Your task to perform on an android device: Search for Mexican restaurants on Maps Image 0: 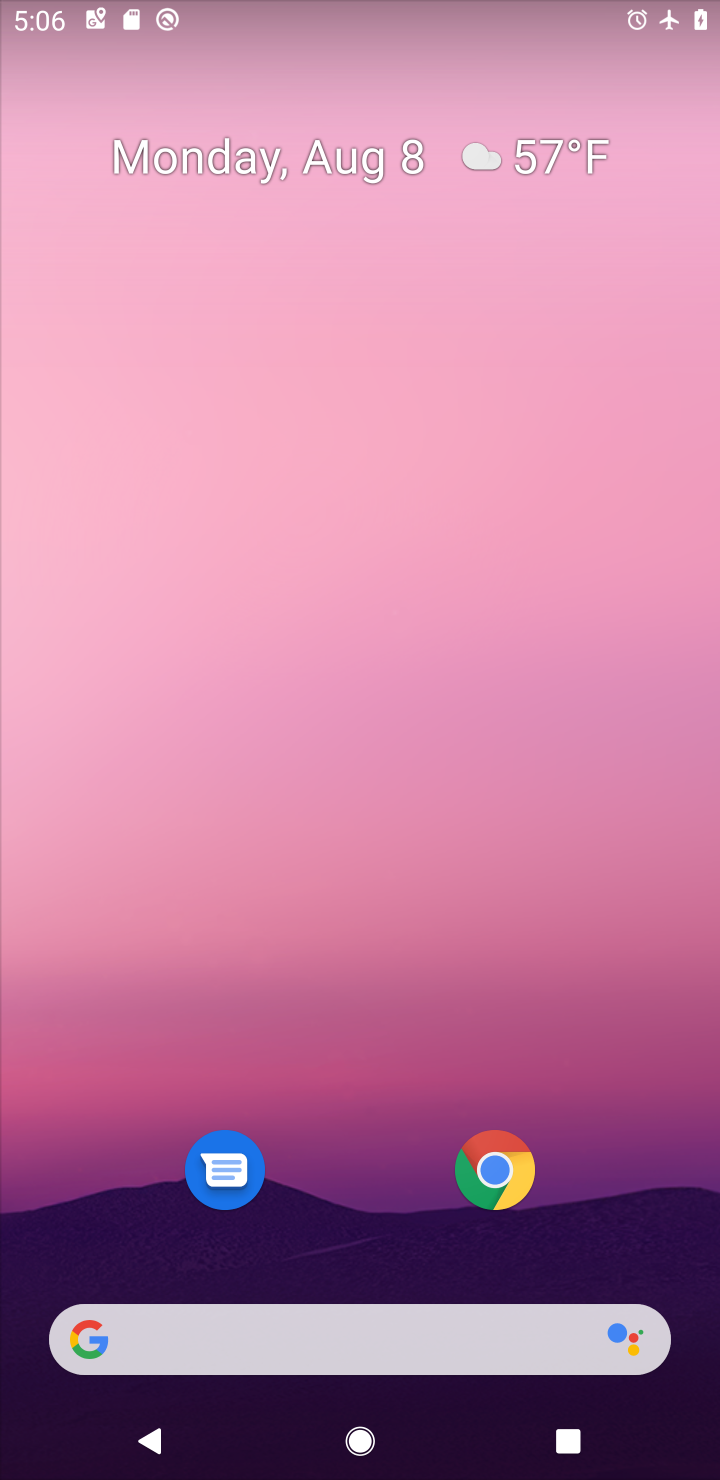
Step 0: drag from (389, 986) to (389, 335)
Your task to perform on an android device: Search for Mexican restaurants on Maps Image 1: 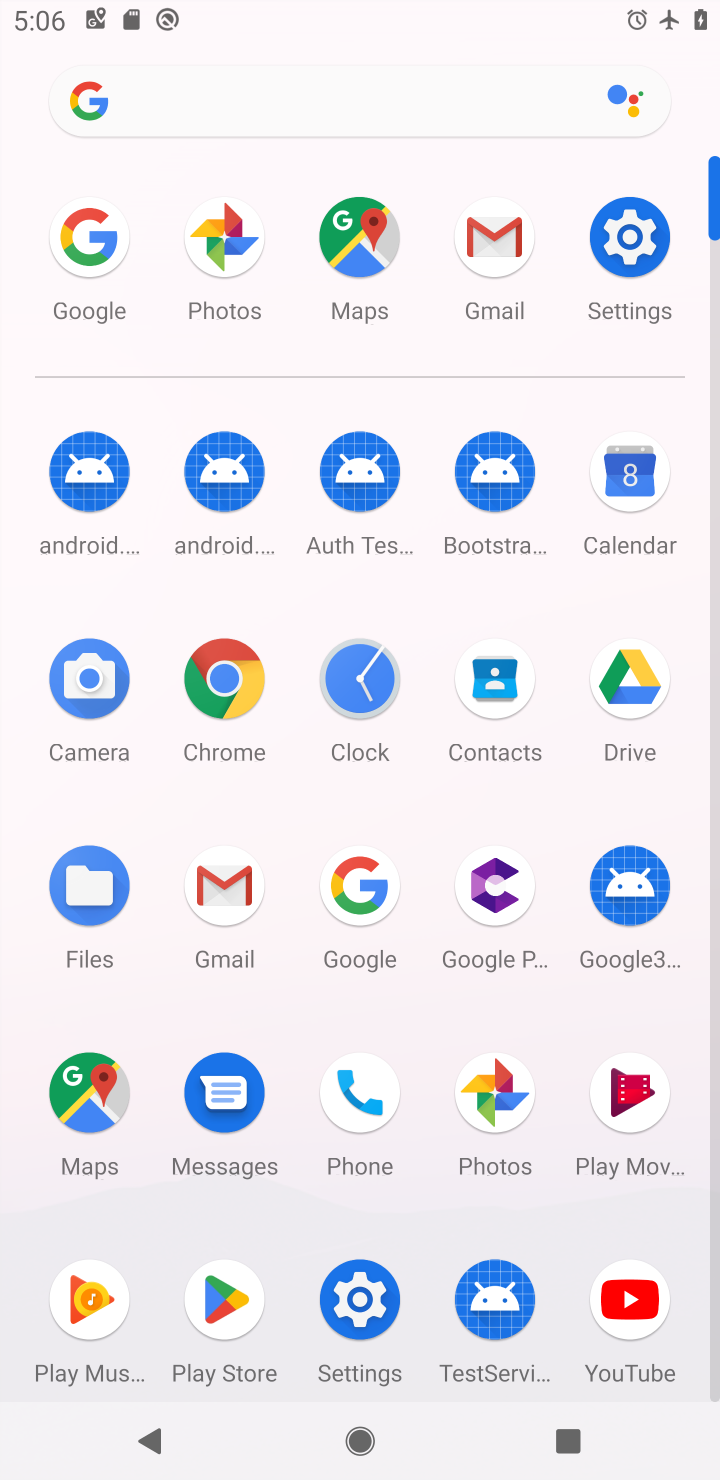
Step 1: click (348, 277)
Your task to perform on an android device: Search for Mexican restaurants on Maps Image 2: 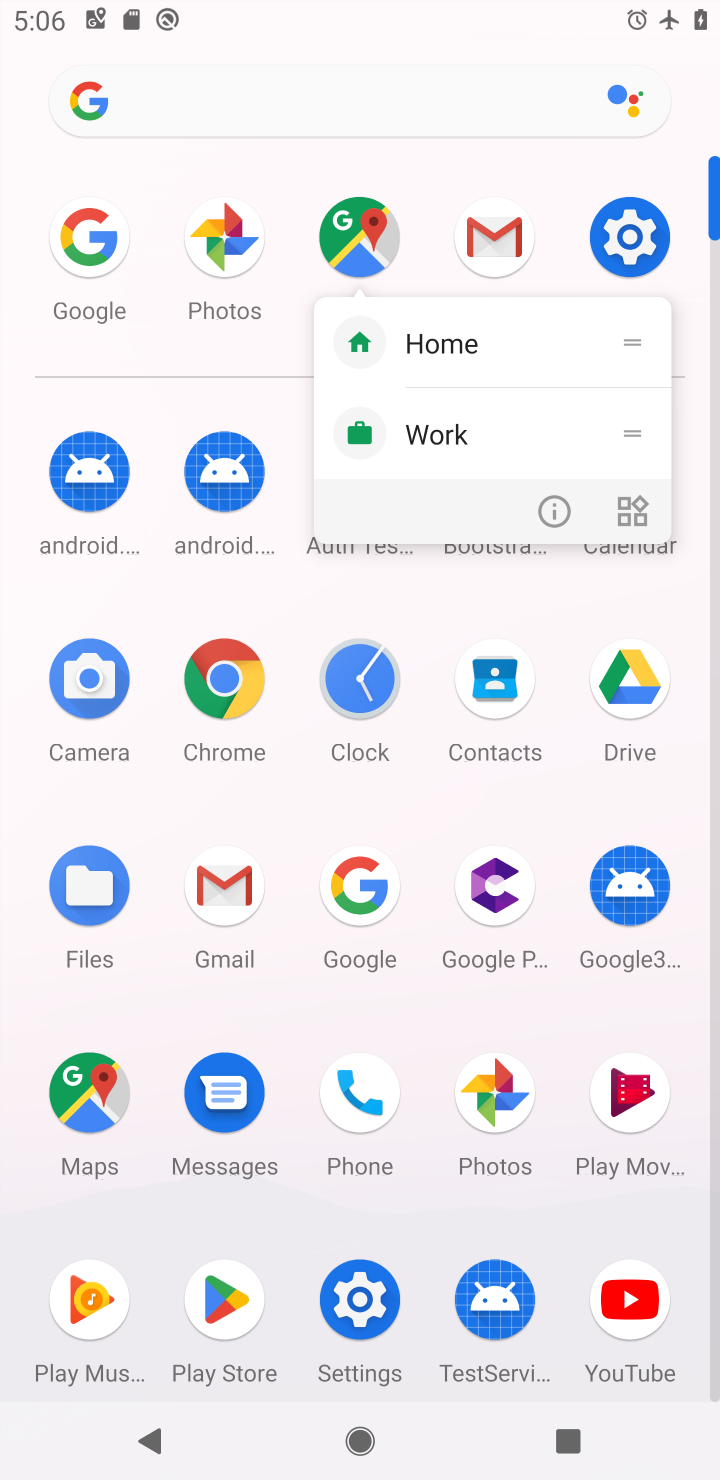
Step 2: click (348, 277)
Your task to perform on an android device: Search for Mexican restaurants on Maps Image 3: 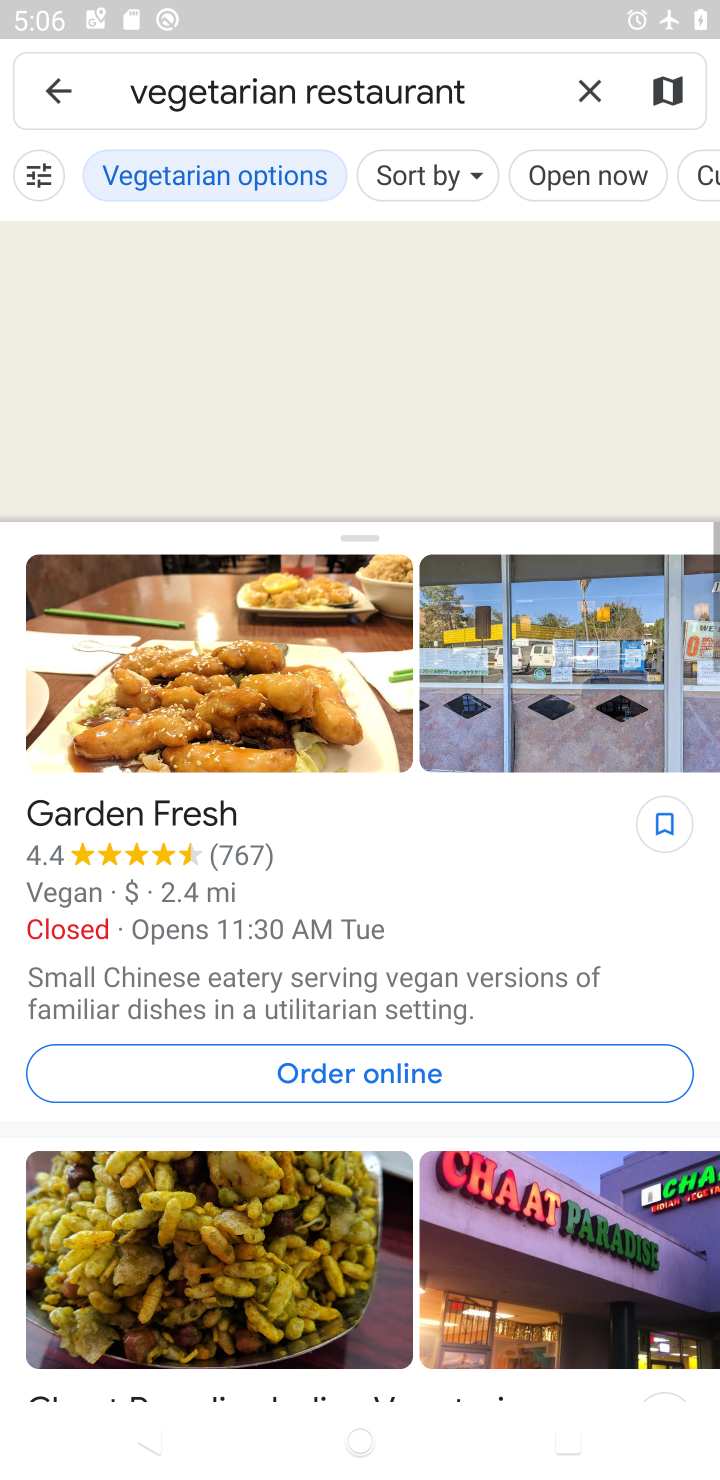
Step 3: click (585, 98)
Your task to perform on an android device: Search for Mexican restaurants on Maps Image 4: 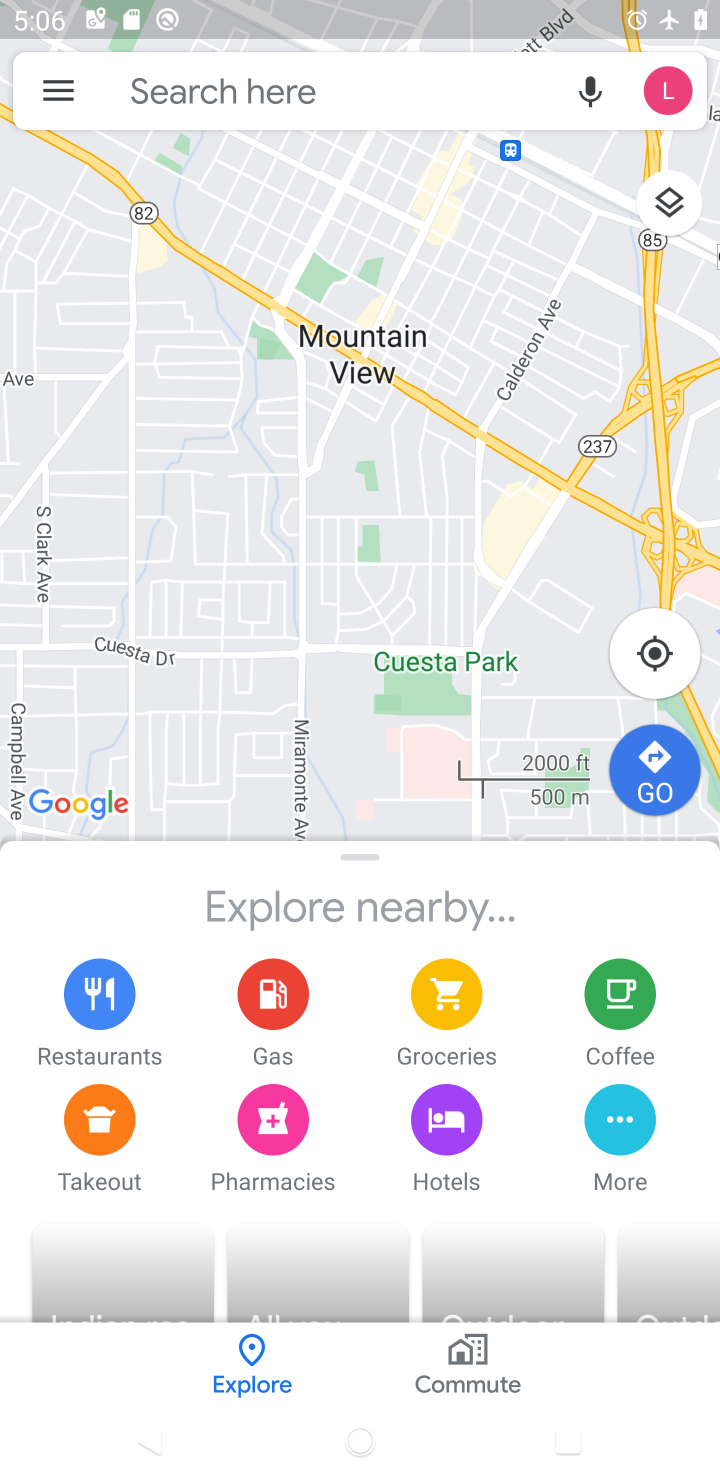
Step 4: click (241, 101)
Your task to perform on an android device: Search for Mexican restaurants on Maps Image 5: 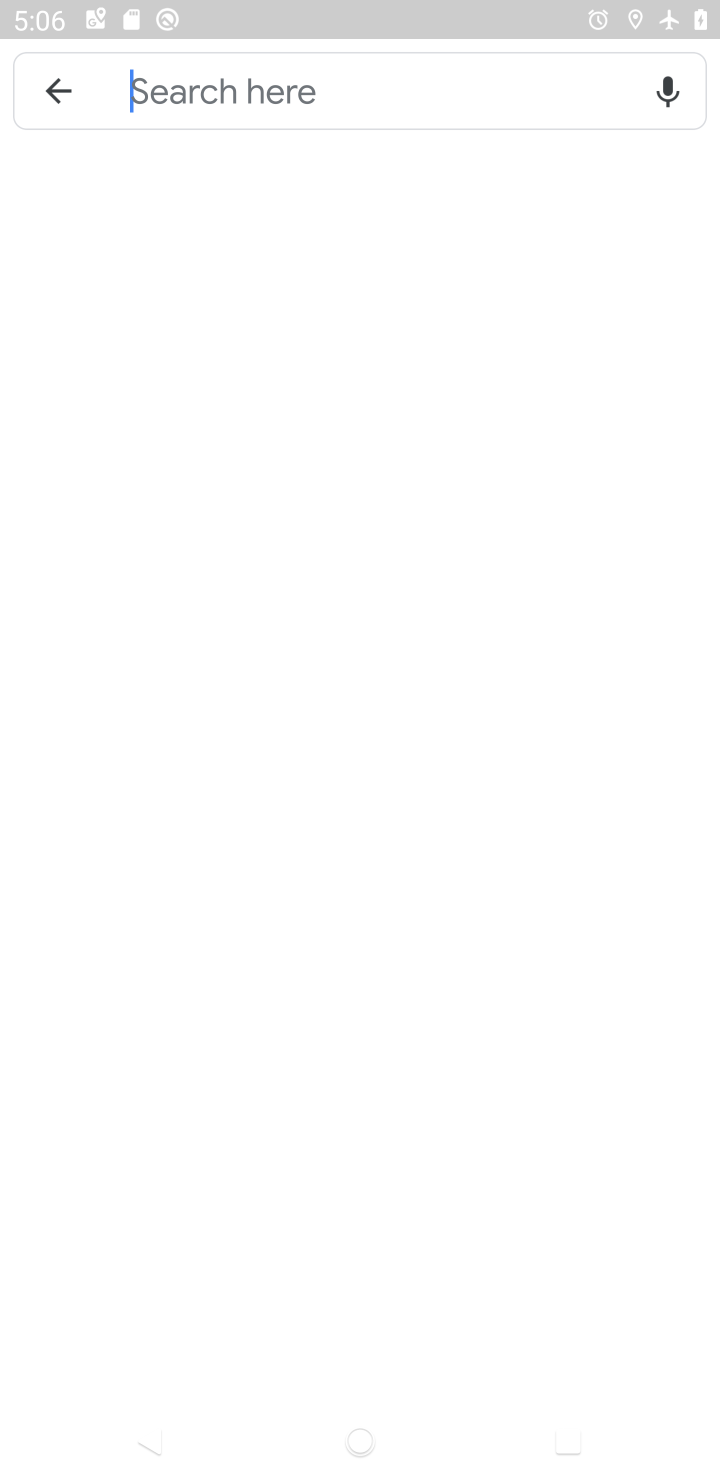
Step 5: type "Mexican restaurants"
Your task to perform on an android device: Search for Mexican restaurants on Maps Image 6: 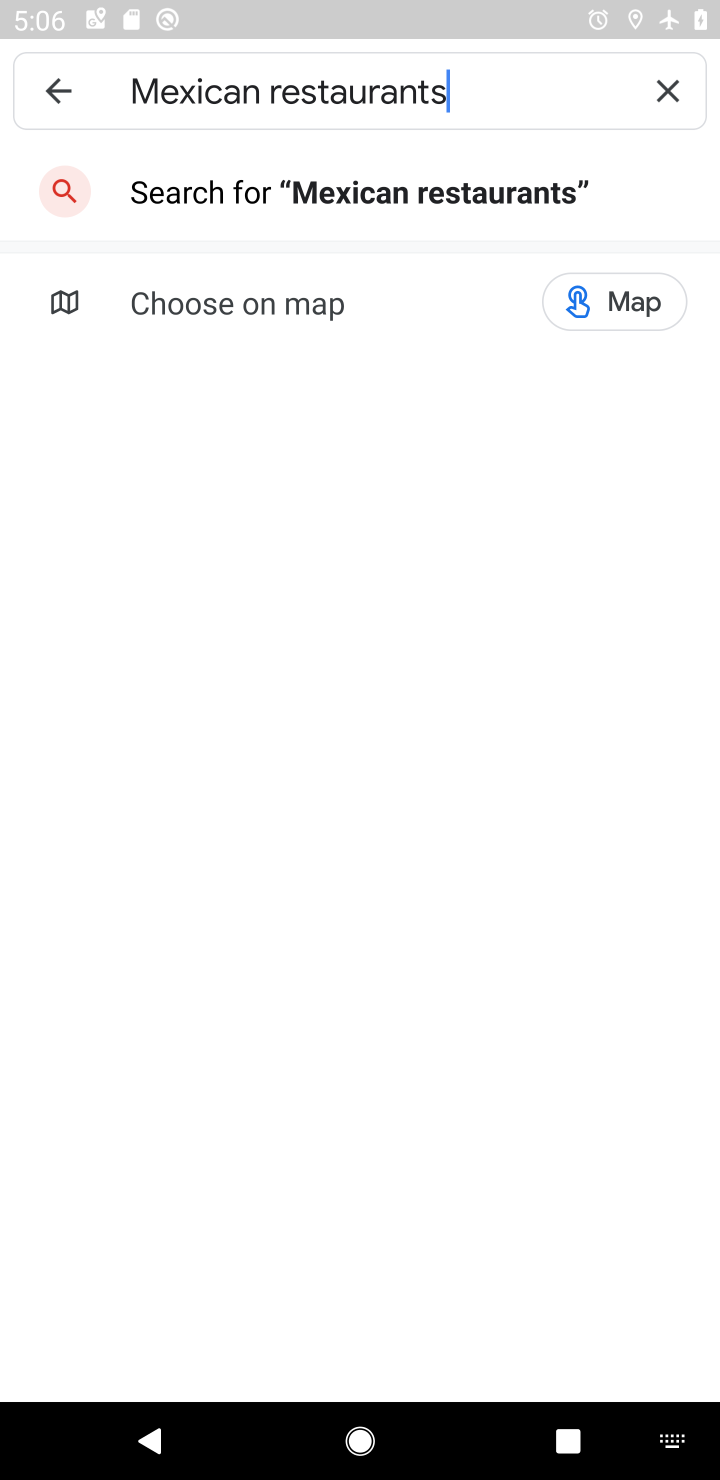
Step 6: type ""
Your task to perform on an android device: Search for Mexican restaurants on Maps Image 7: 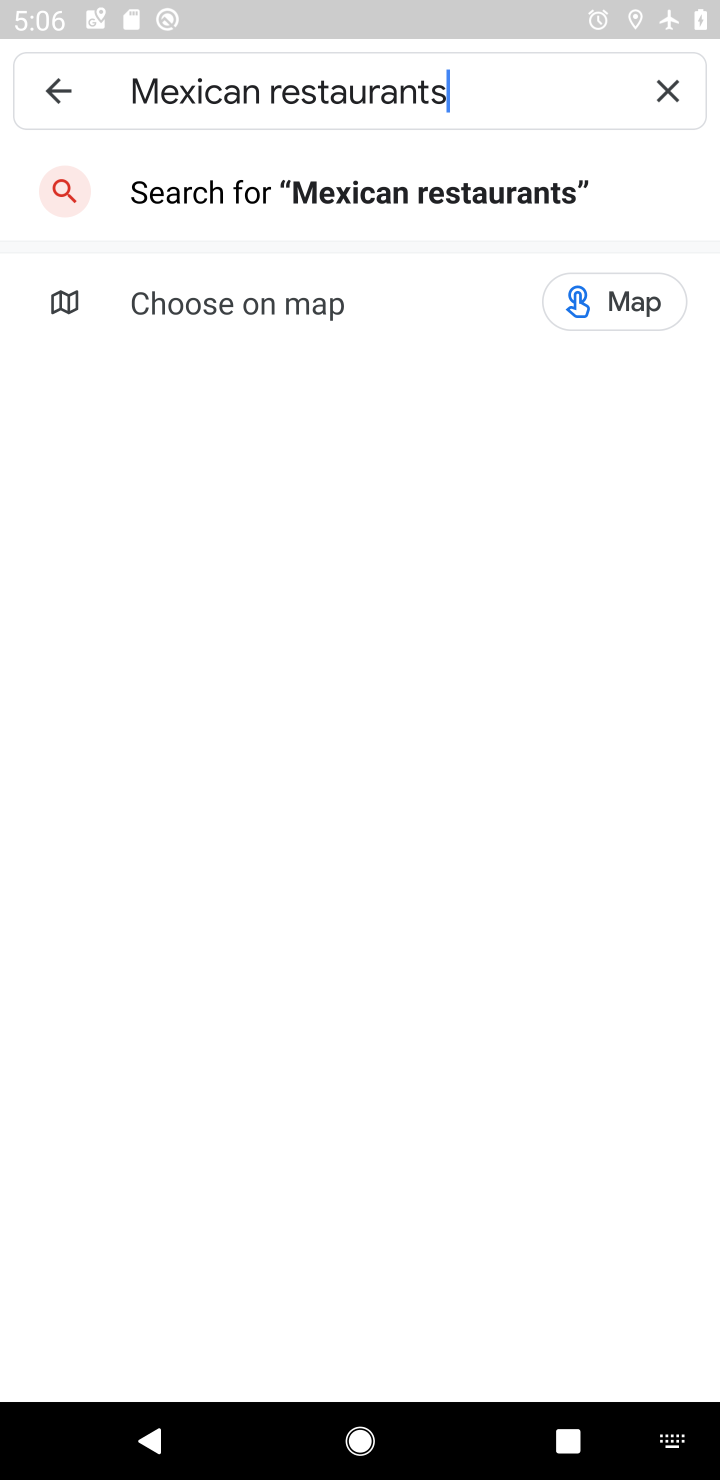
Step 7: click (185, 80)
Your task to perform on an android device: Search for Mexican restaurants on Maps Image 8: 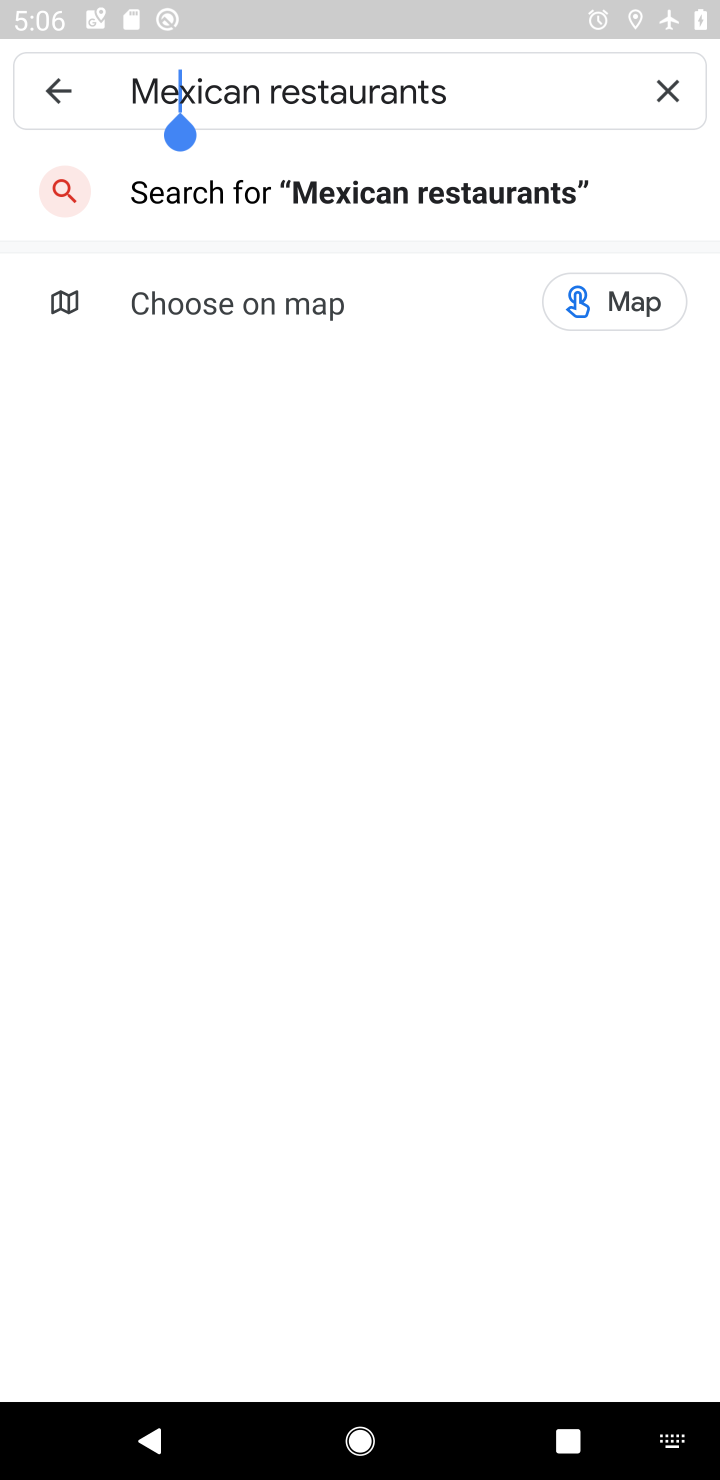
Step 8: click (315, 209)
Your task to perform on an android device: Search for Mexican restaurants on Maps Image 9: 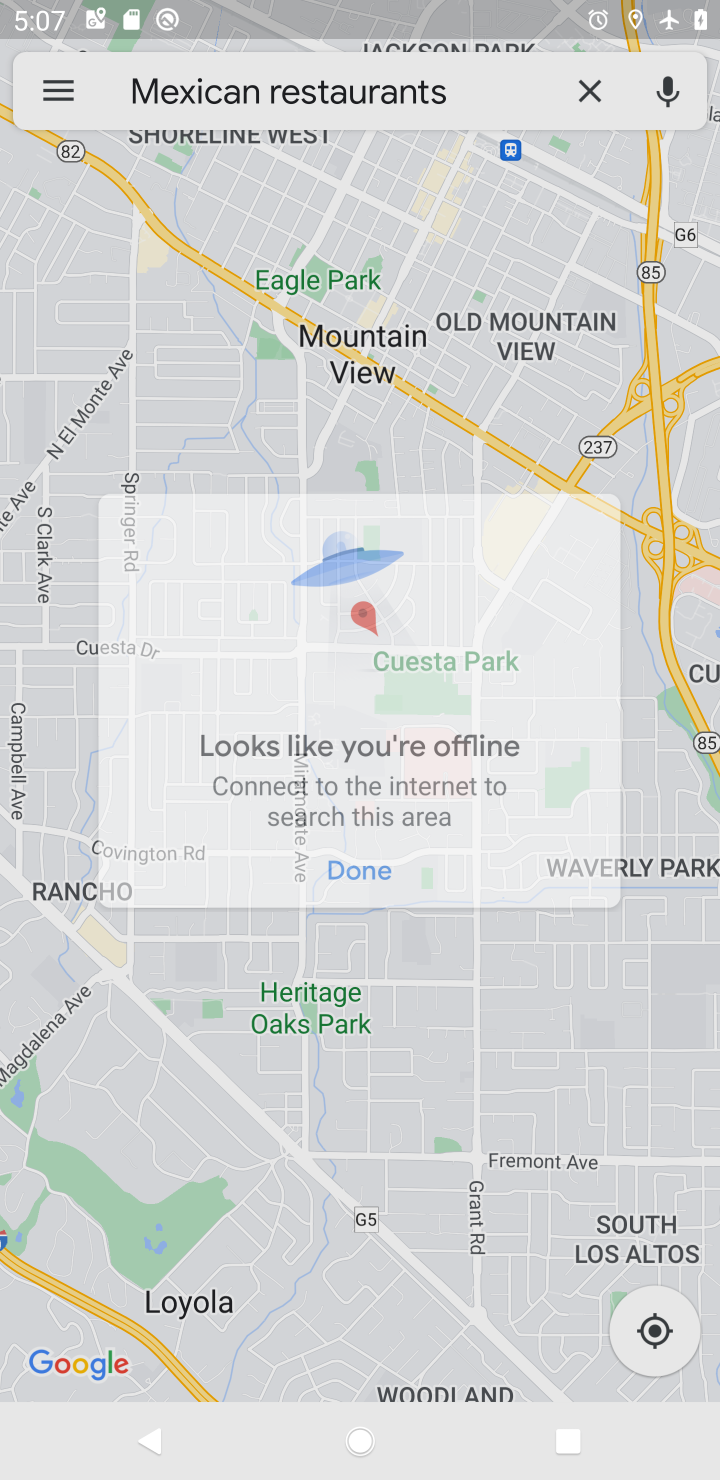
Step 9: task complete